Your task to perform on an android device: open sync settings in chrome Image 0: 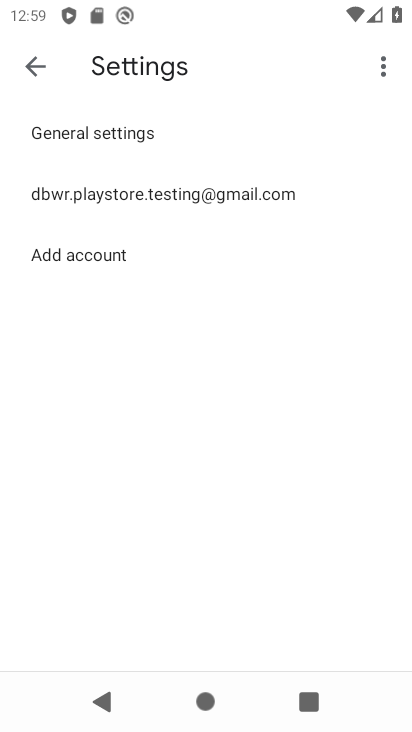
Step 0: press home button
Your task to perform on an android device: open sync settings in chrome Image 1: 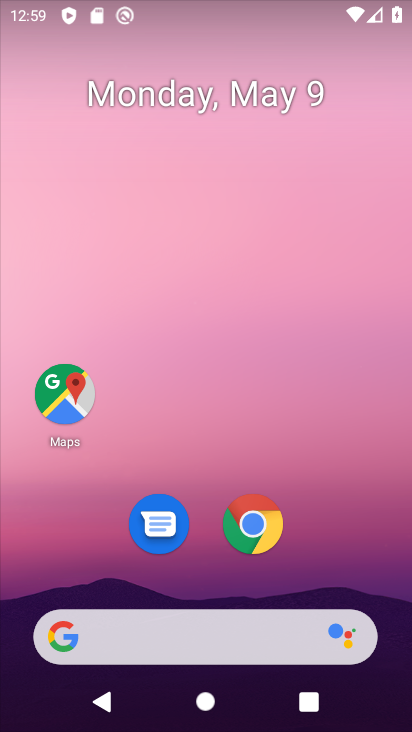
Step 1: click (245, 524)
Your task to perform on an android device: open sync settings in chrome Image 2: 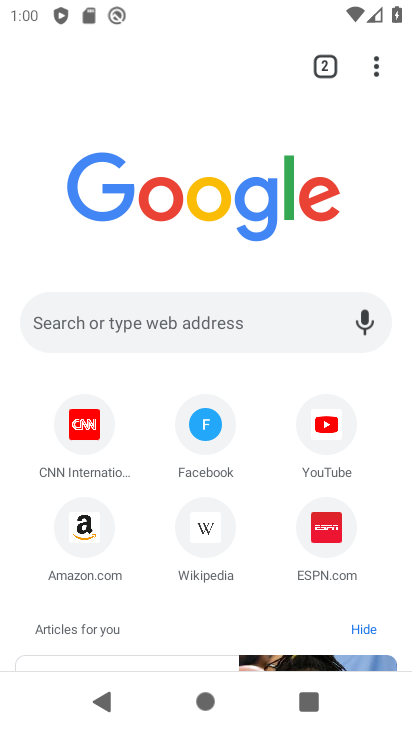
Step 2: drag from (378, 64) to (157, 554)
Your task to perform on an android device: open sync settings in chrome Image 3: 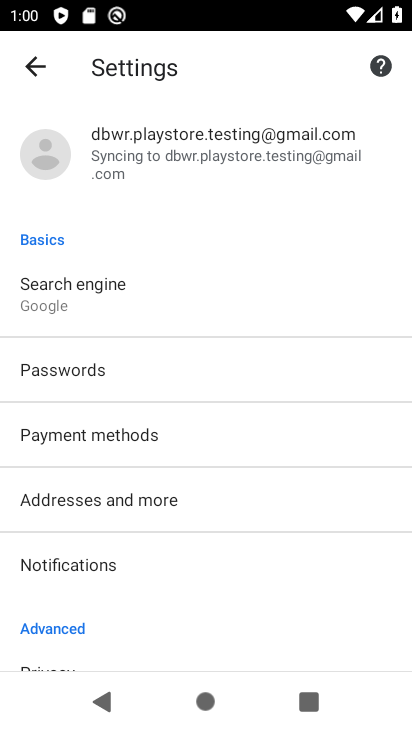
Step 3: click (217, 138)
Your task to perform on an android device: open sync settings in chrome Image 4: 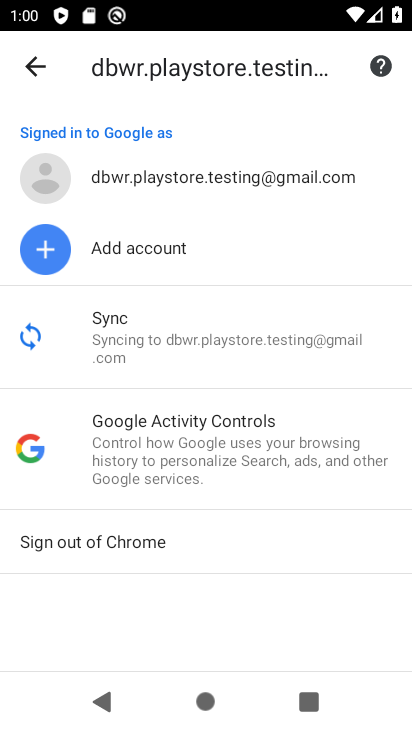
Step 4: click (160, 342)
Your task to perform on an android device: open sync settings in chrome Image 5: 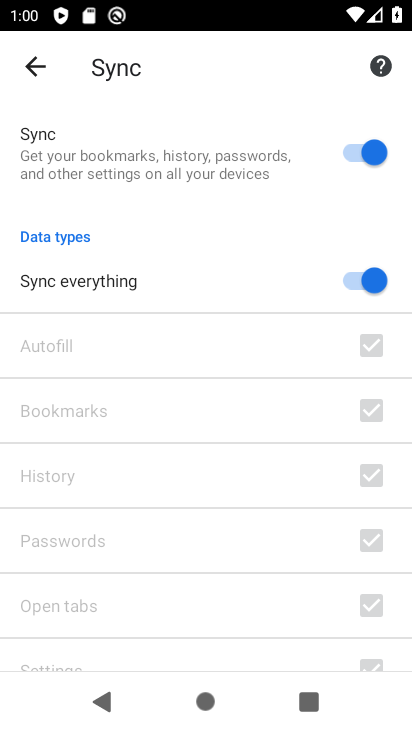
Step 5: task complete